Your task to perform on an android device: open chrome privacy settings Image 0: 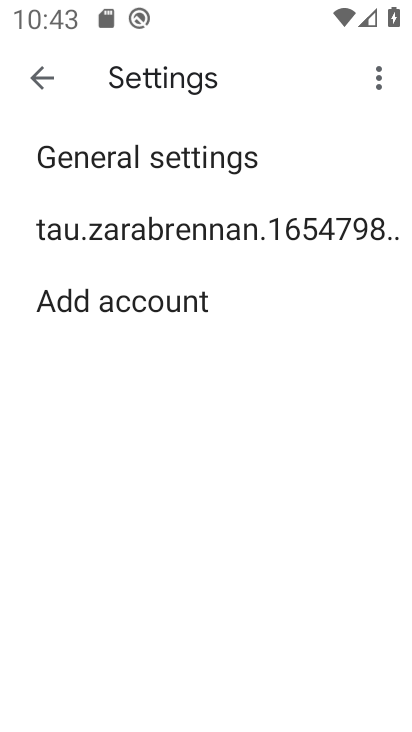
Step 0: press home button
Your task to perform on an android device: open chrome privacy settings Image 1: 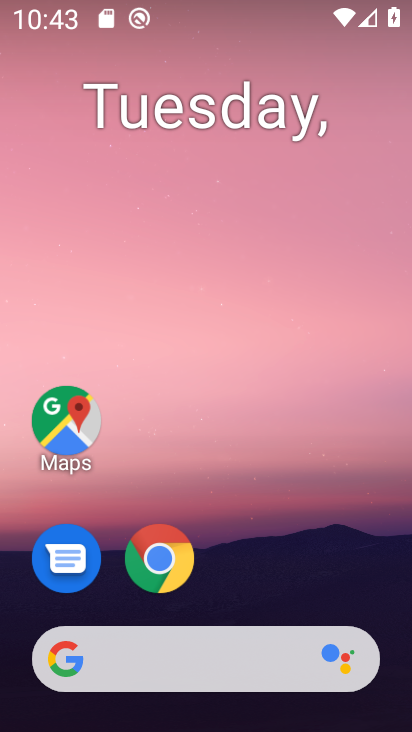
Step 1: drag from (354, 573) to (369, 114)
Your task to perform on an android device: open chrome privacy settings Image 2: 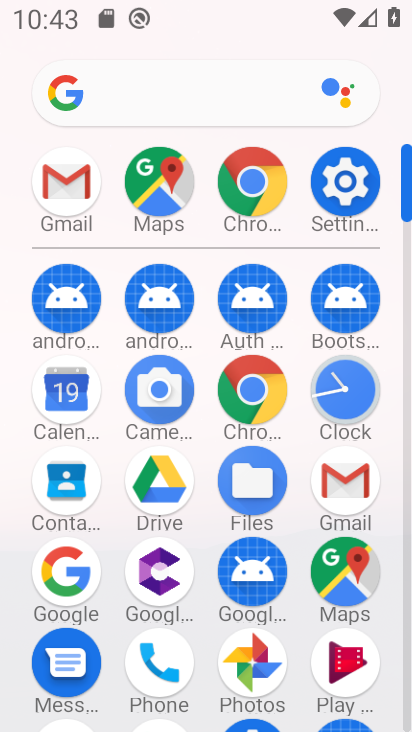
Step 2: click (263, 191)
Your task to perform on an android device: open chrome privacy settings Image 3: 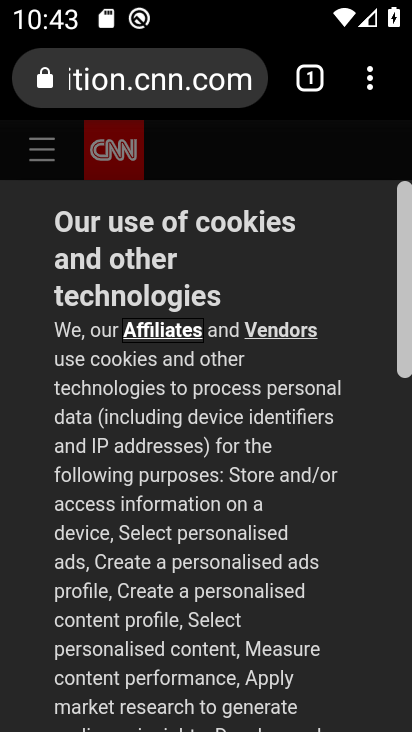
Step 3: click (368, 91)
Your task to perform on an android device: open chrome privacy settings Image 4: 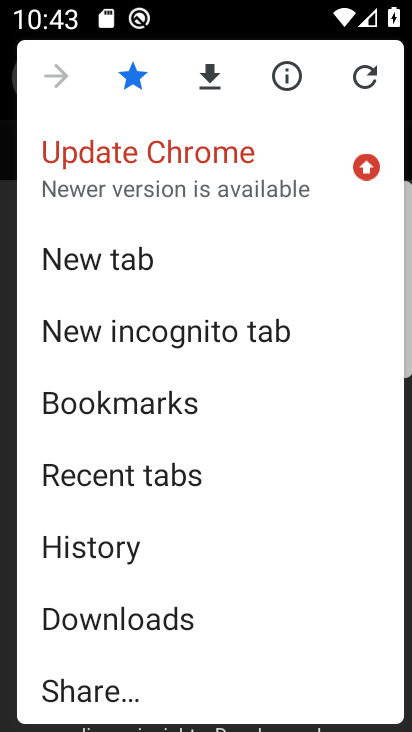
Step 4: drag from (314, 538) to (318, 460)
Your task to perform on an android device: open chrome privacy settings Image 5: 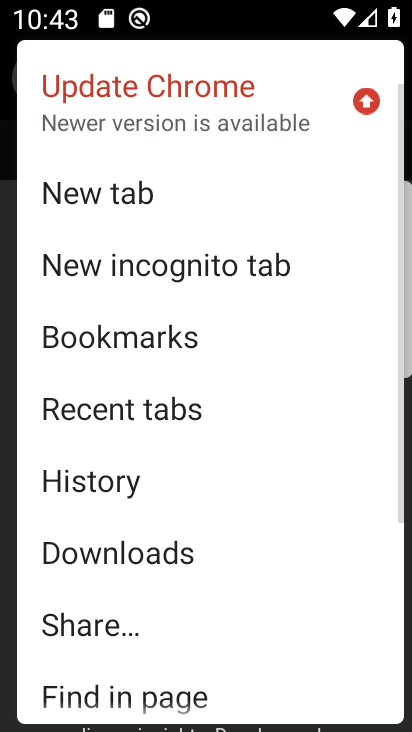
Step 5: drag from (320, 558) to (323, 457)
Your task to perform on an android device: open chrome privacy settings Image 6: 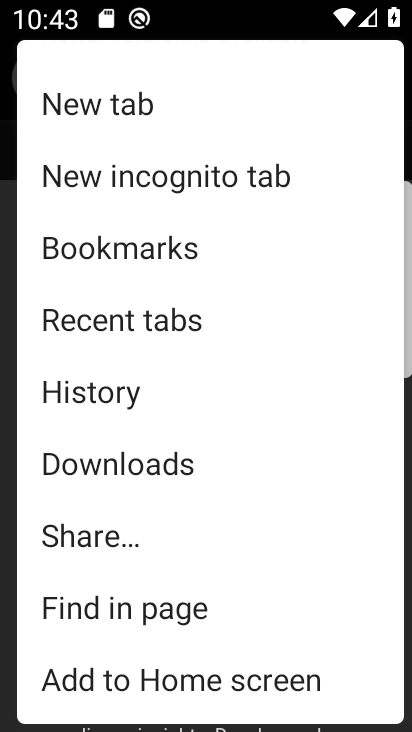
Step 6: drag from (310, 541) to (320, 427)
Your task to perform on an android device: open chrome privacy settings Image 7: 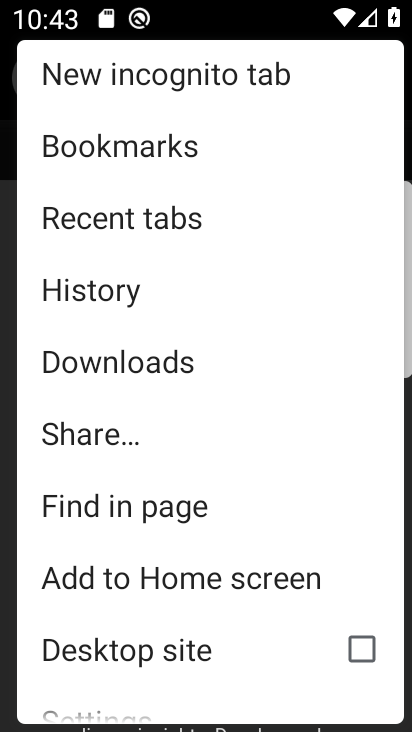
Step 7: drag from (341, 565) to (348, 417)
Your task to perform on an android device: open chrome privacy settings Image 8: 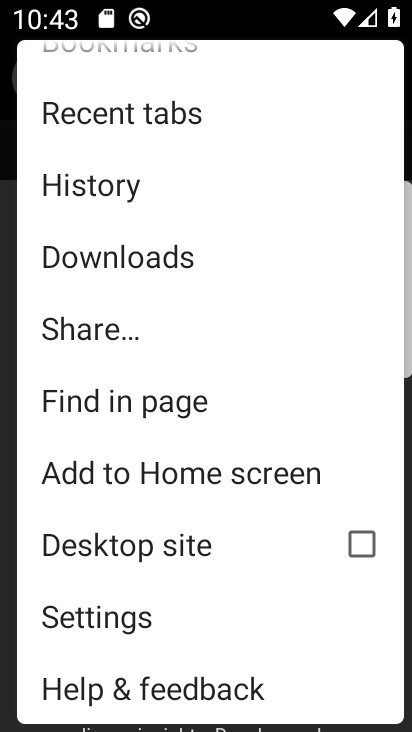
Step 8: drag from (322, 590) to (330, 426)
Your task to perform on an android device: open chrome privacy settings Image 9: 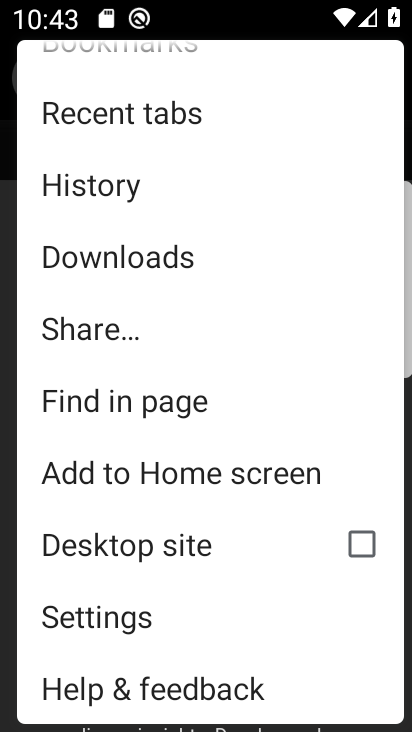
Step 9: click (264, 621)
Your task to perform on an android device: open chrome privacy settings Image 10: 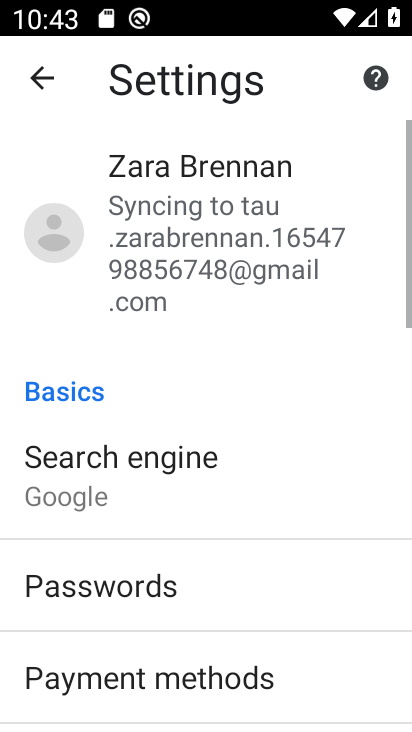
Step 10: drag from (309, 584) to (322, 504)
Your task to perform on an android device: open chrome privacy settings Image 11: 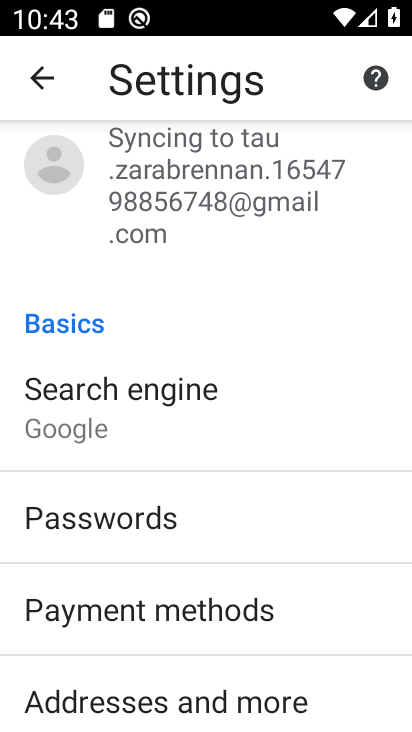
Step 11: drag from (324, 615) to (329, 509)
Your task to perform on an android device: open chrome privacy settings Image 12: 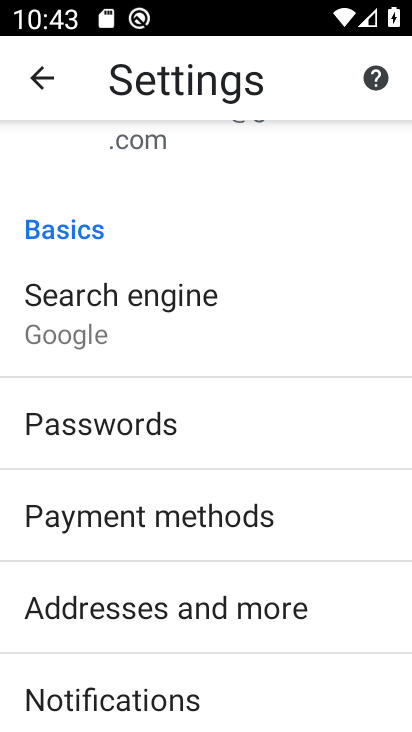
Step 12: drag from (345, 614) to (350, 506)
Your task to perform on an android device: open chrome privacy settings Image 13: 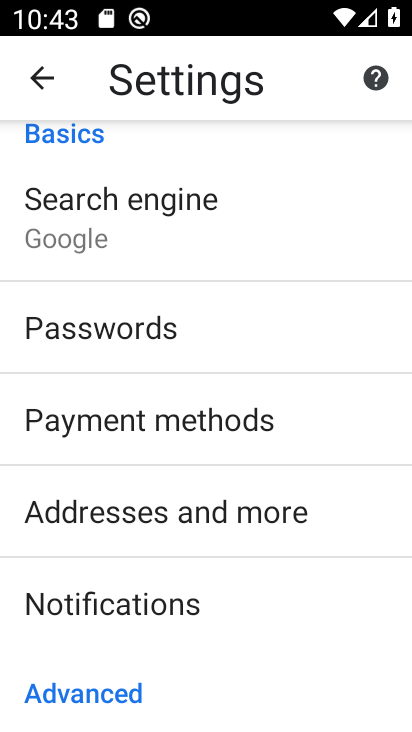
Step 13: drag from (359, 600) to (364, 483)
Your task to perform on an android device: open chrome privacy settings Image 14: 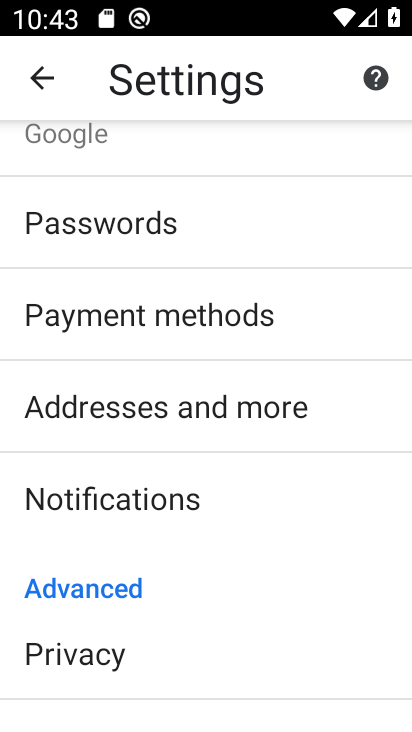
Step 14: drag from (320, 601) to (331, 512)
Your task to perform on an android device: open chrome privacy settings Image 15: 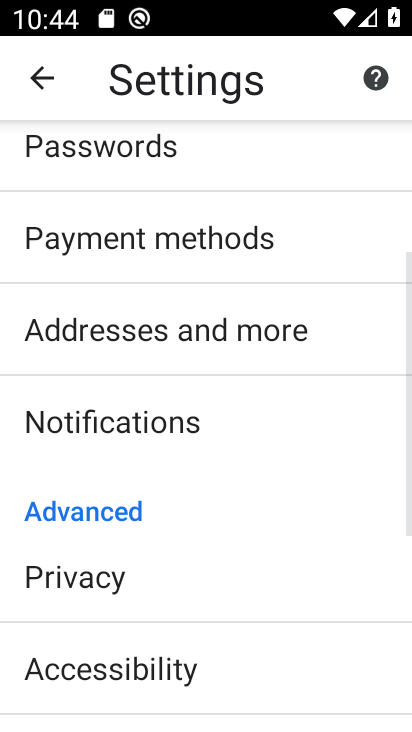
Step 15: drag from (320, 588) to (325, 499)
Your task to perform on an android device: open chrome privacy settings Image 16: 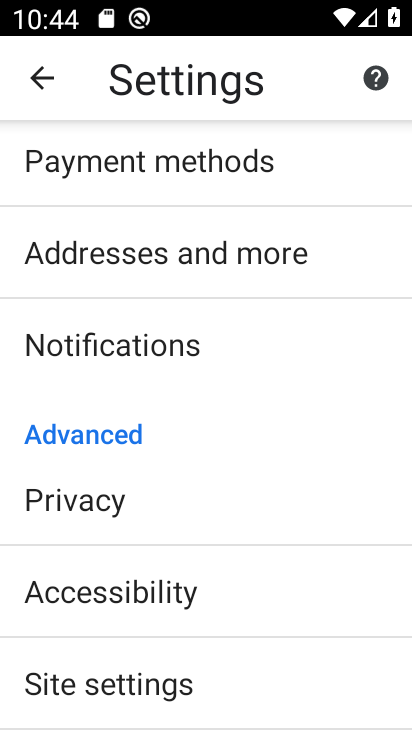
Step 16: click (310, 501)
Your task to perform on an android device: open chrome privacy settings Image 17: 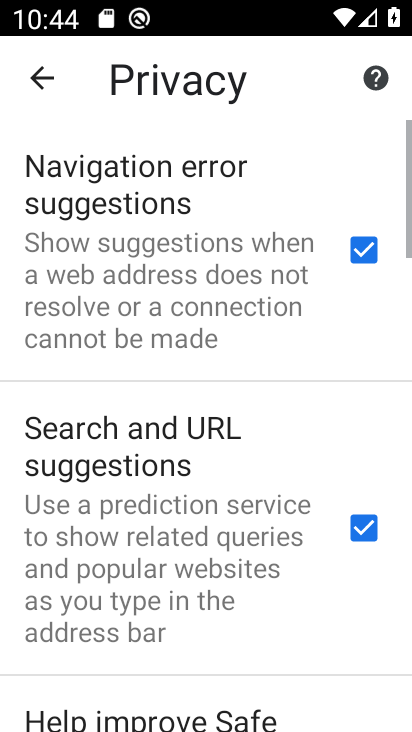
Step 17: task complete